Your task to perform on an android device: add a label to a message in the gmail app Image 0: 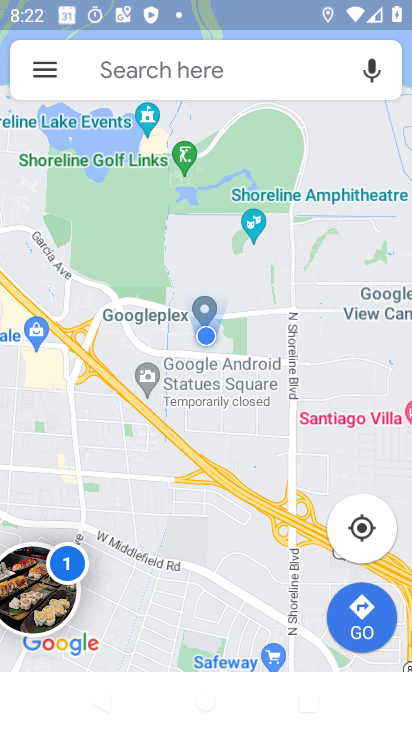
Step 0: press home button
Your task to perform on an android device: add a label to a message in the gmail app Image 1: 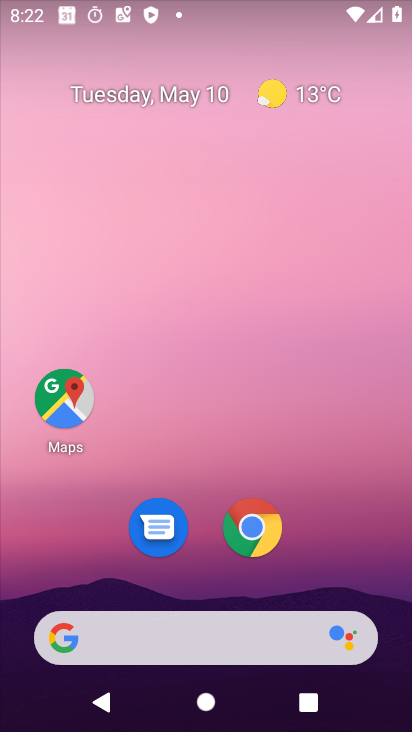
Step 1: drag from (40, 504) to (189, 92)
Your task to perform on an android device: add a label to a message in the gmail app Image 2: 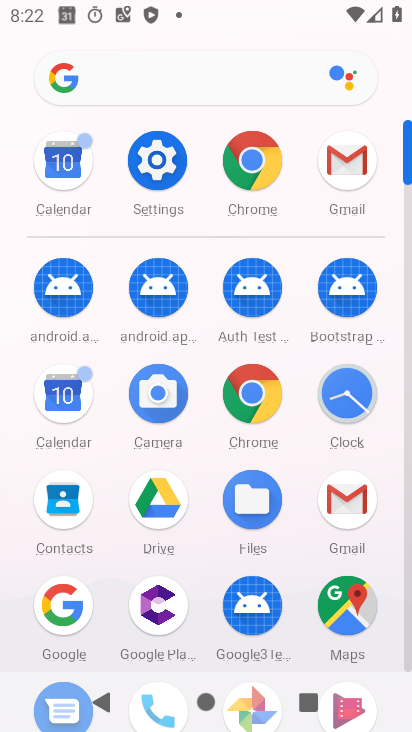
Step 2: click (338, 520)
Your task to perform on an android device: add a label to a message in the gmail app Image 3: 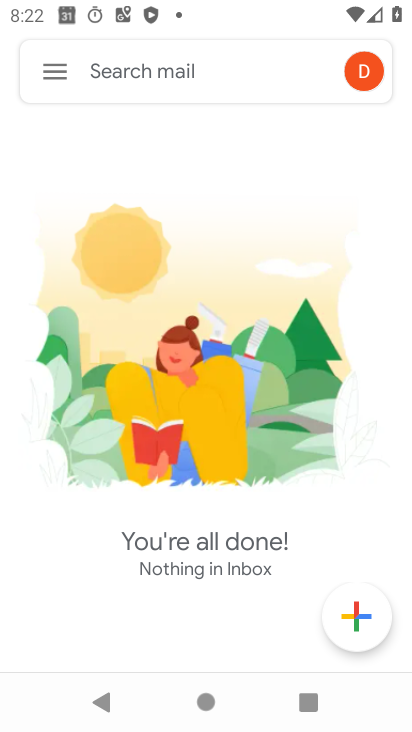
Step 3: click (49, 65)
Your task to perform on an android device: add a label to a message in the gmail app Image 4: 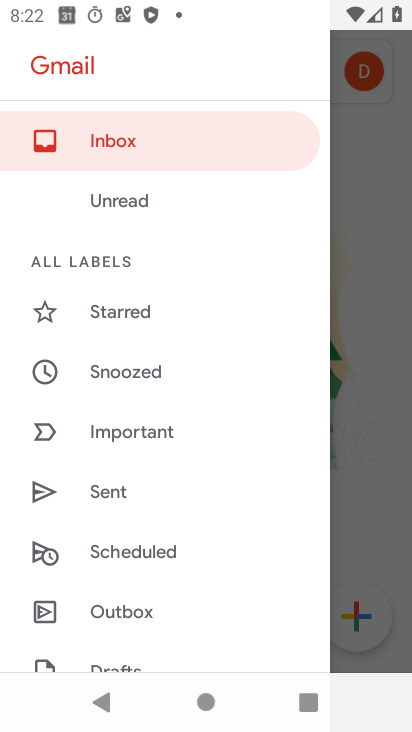
Step 4: click (107, 153)
Your task to perform on an android device: add a label to a message in the gmail app Image 5: 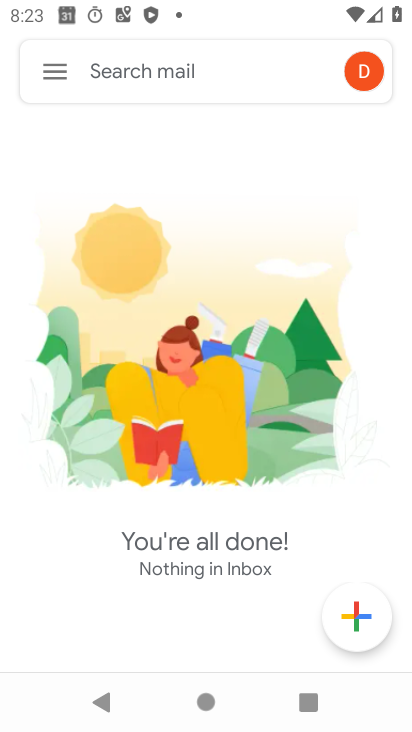
Step 5: task complete